Your task to perform on an android device: What's the weather going to be tomorrow? Image 0: 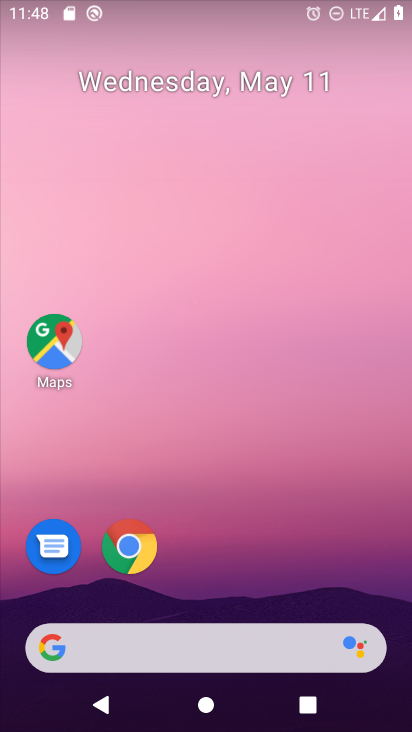
Step 0: click (236, 633)
Your task to perform on an android device: What's the weather going to be tomorrow? Image 1: 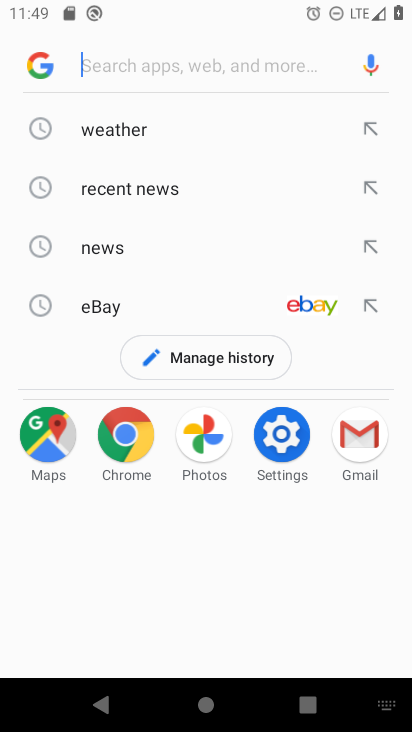
Step 1: type "wealther tomorrow?"
Your task to perform on an android device: What's the weather going to be tomorrow? Image 2: 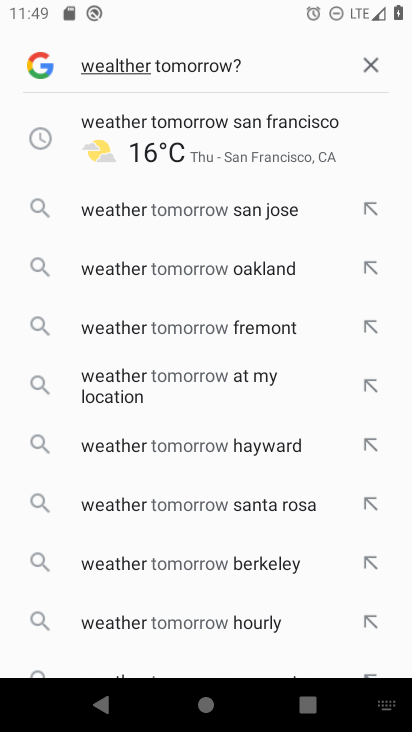
Step 2: click (108, 149)
Your task to perform on an android device: What's the weather going to be tomorrow? Image 3: 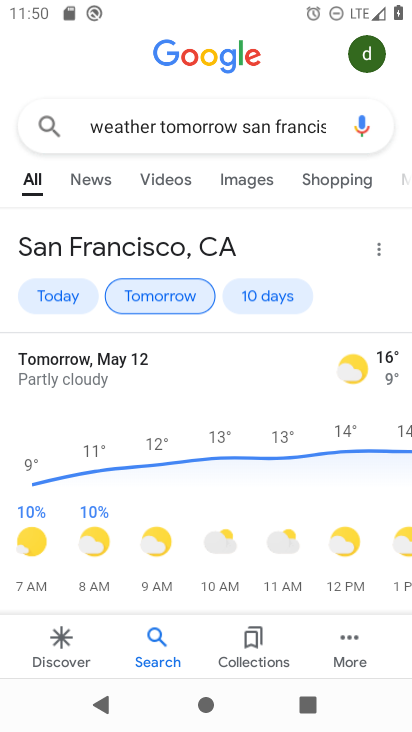
Step 3: task complete